Your task to perform on an android device: turn notification dots on Image 0: 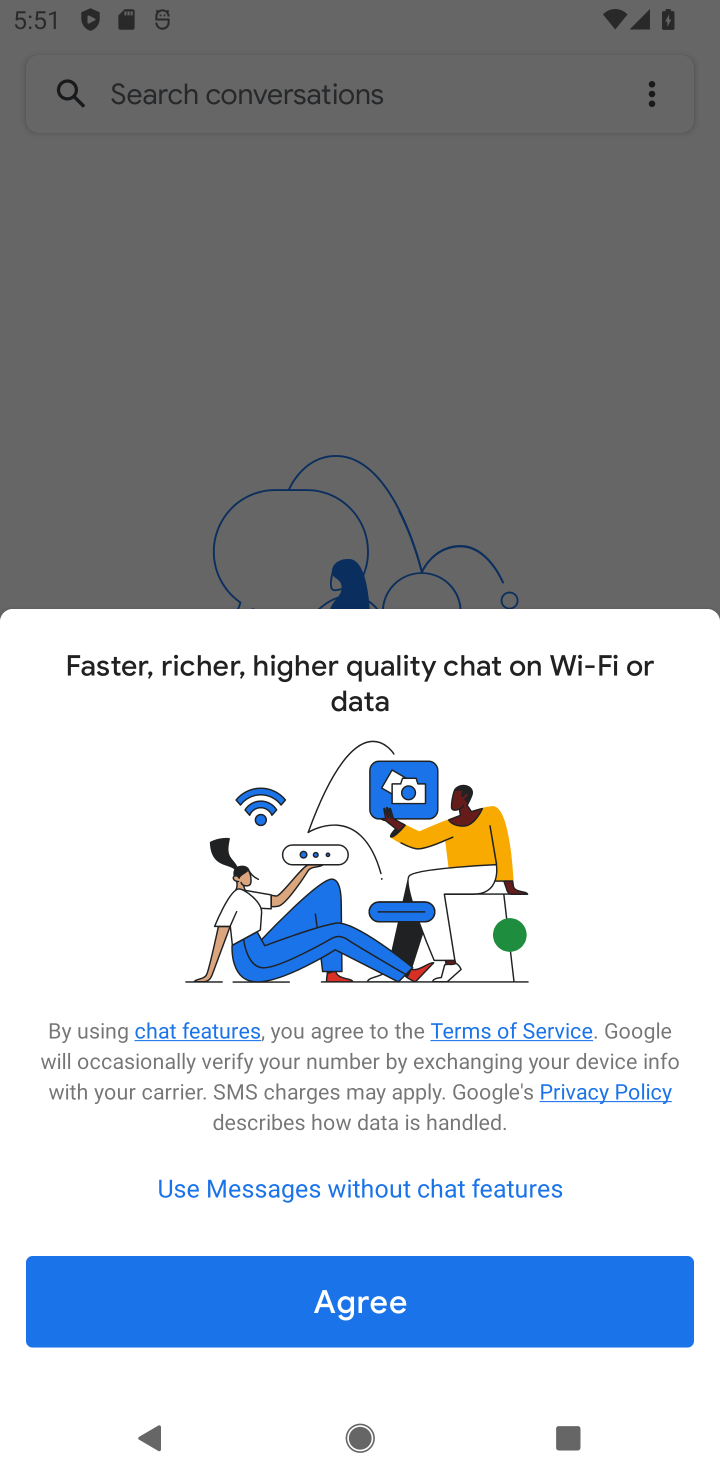
Step 0: press home button
Your task to perform on an android device: turn notification dots on Image 1: 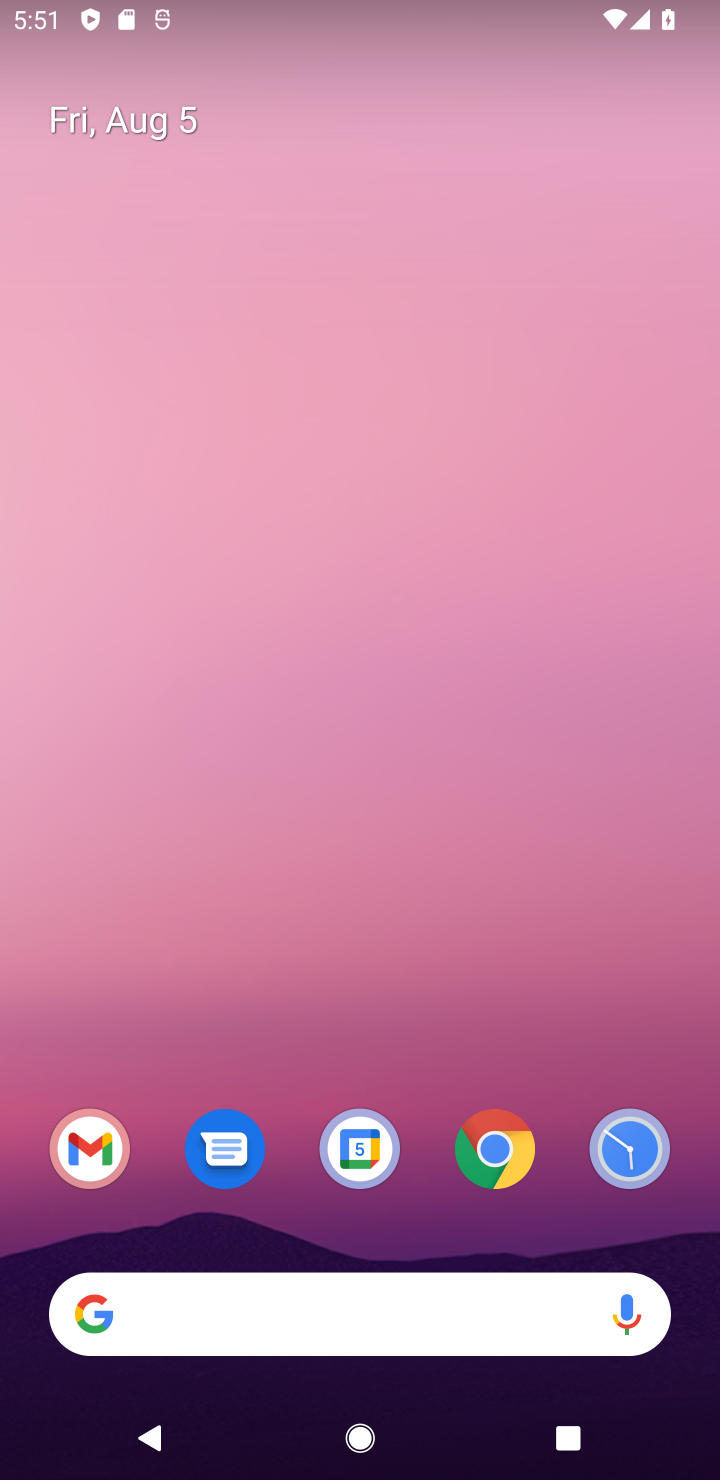
Step 1: drag from (262, 1039) to (272, 238)
Your task to perform on an android device: turn notification dots on Image 2: 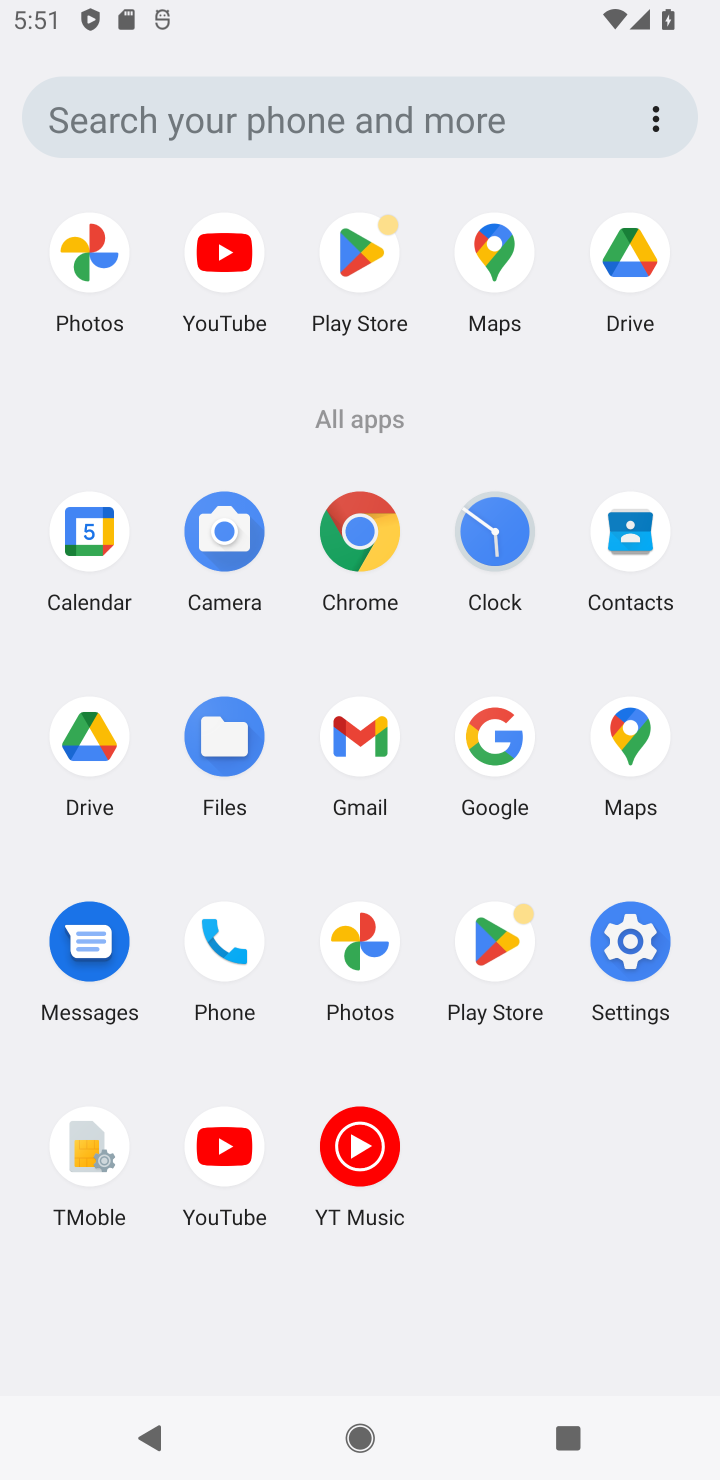
Step 2: click (634, 969)
Your task to perform on an android device: turn notification dots on Image 3: 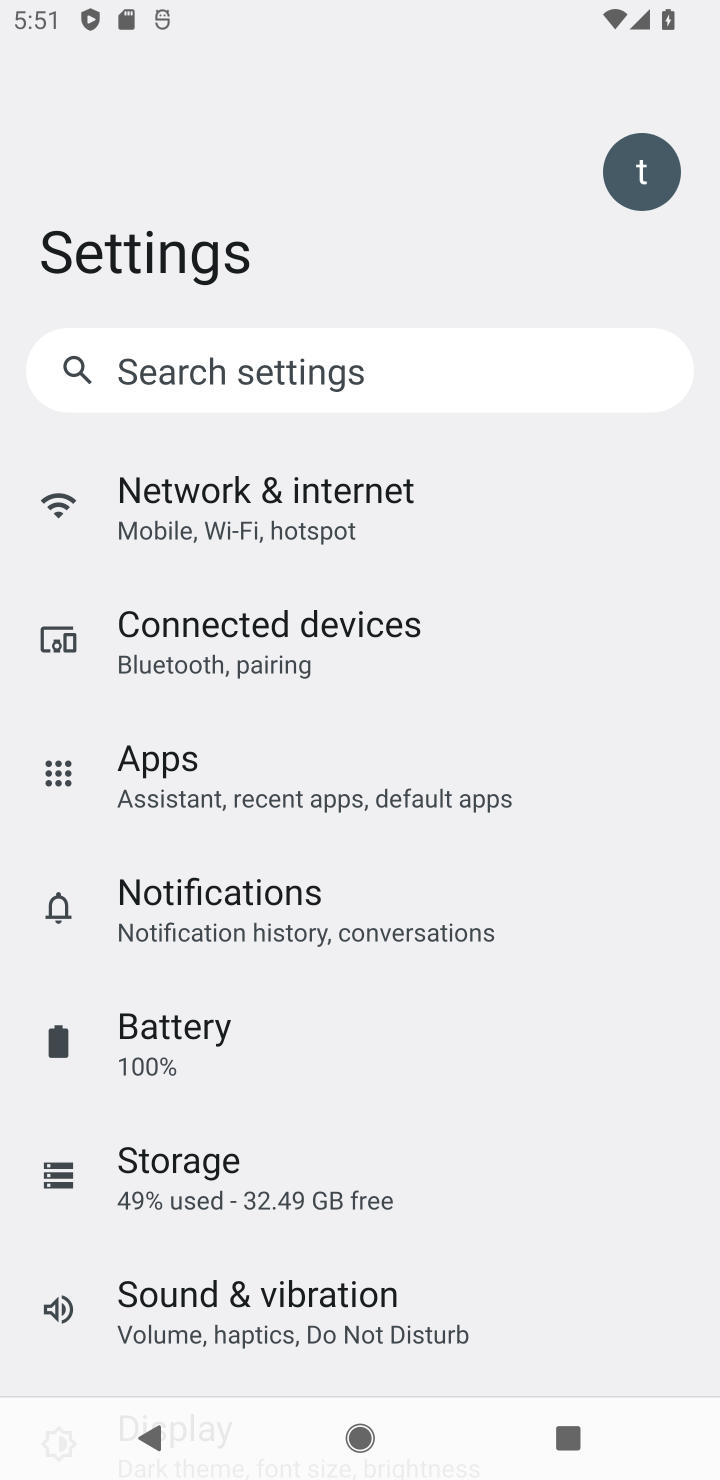
Step 3: click (363, 917)
Your task to perform on an android device: turn notification dots on Image 4: 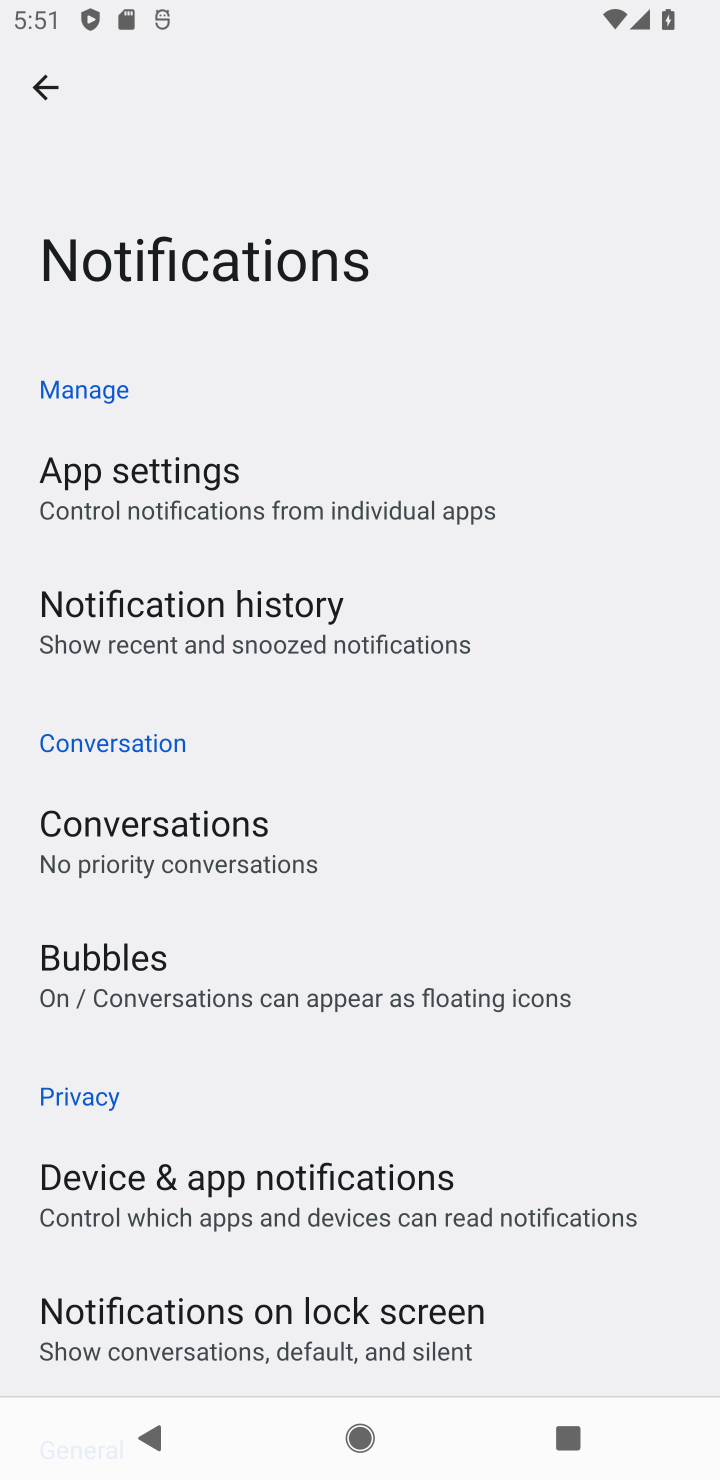
Step 4: task complete